Your task to perform on an android device: Add alienware area 51 to the cart on walmart.com Image 0: 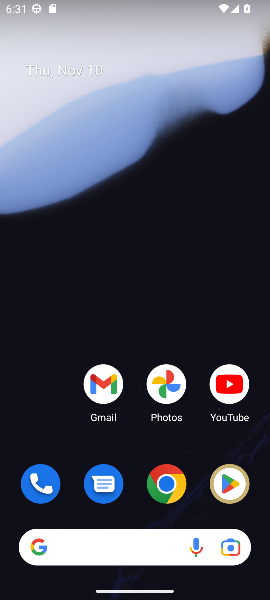
Step 0: click (164, 488)
Your task to perform on an android device: Add alienware area 51 to the cart on walmart.com Image 1: 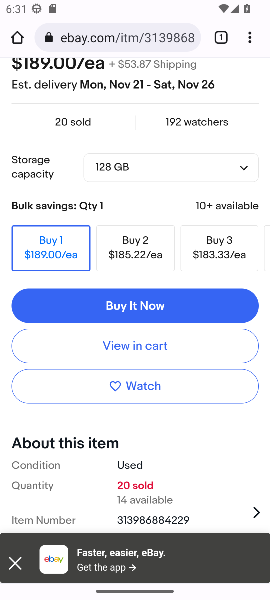
Step 1: click (106, 40)
Your task to perform on an android device: Add alienware area 51 to the cart on walmart.com Image 2: 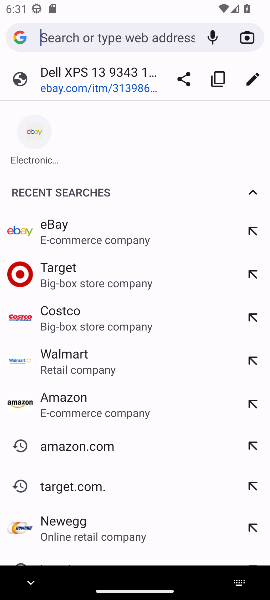
Step 2: type "walmart.com"
Your task to perform on an android device: Add alienware area 51 to the cart on walmart.com Image 3: 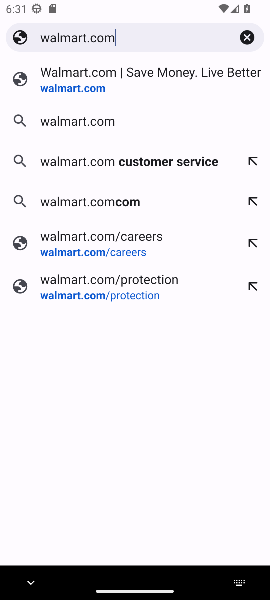
Step 3: click (72, 85)
Your task to perform on an android device: Add alienware area 51 to the cart on walmart.com Image 4: 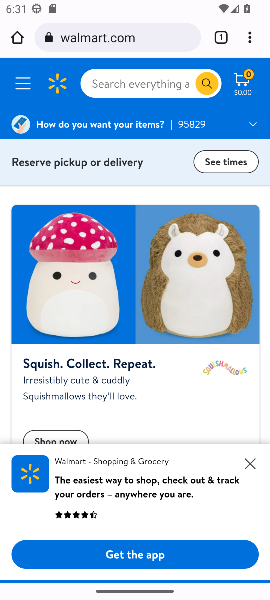
Step 4: click (118, 83)
Your task to perform on an android device: Add alienware area 51 to the cart on walmart.com Image 5: 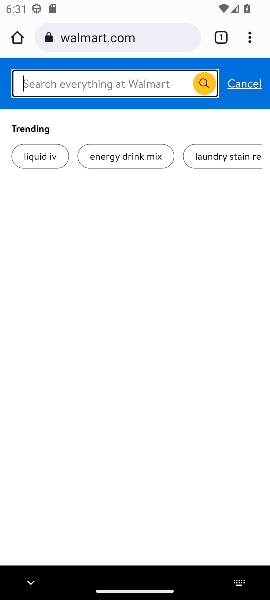
Step 5: type "alienware area 51"
Your task to perform on an android device: Add alienware area 51 to the cart on walmart.com Image 6: 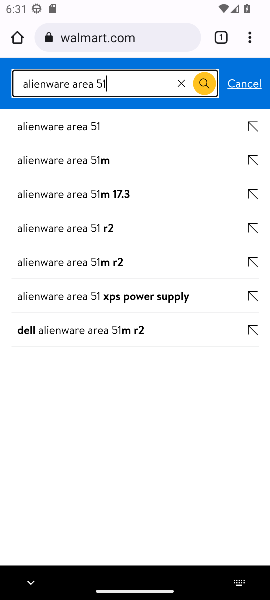
Step 6: click (79, 125)
Your task to perform on an android device: Add alienware area 51 to the cart on walmart.com Image 7: 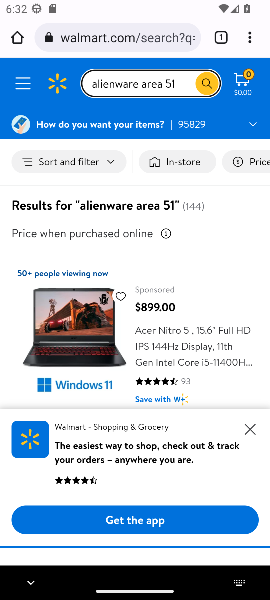
Step 7: drag from (143, 352) to (153, 174)
Your task to perform on an android device: Add alienware area 51 to the cart on walmart.com Image 8: 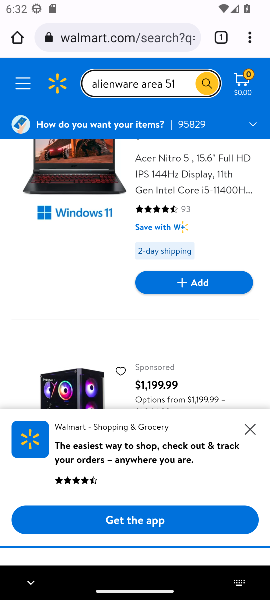
Step 8: drag from (120, 336) to (131, 158)
Your task to perform on an android device: Add alienware area 51 to the cart on walmart.com Image 9: 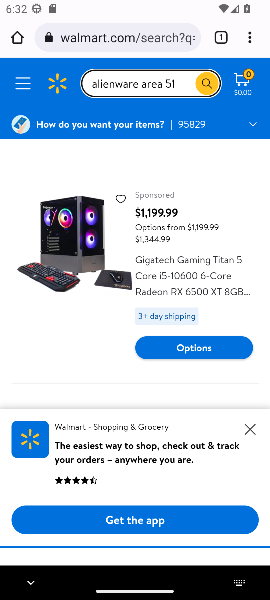
Step 9: click (255, 430)
Your task to perform on an android device: Add alienware area 51 to the cart on walmart.com Image 10: 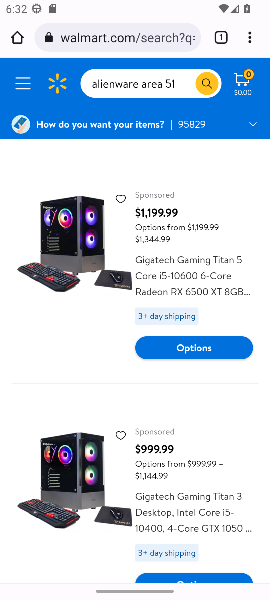
Step 10: drag from (91, 392) to (91, 216)
Your task to perform on an android device: Add alienware area 51 to the cart on walmart.com Image 11: 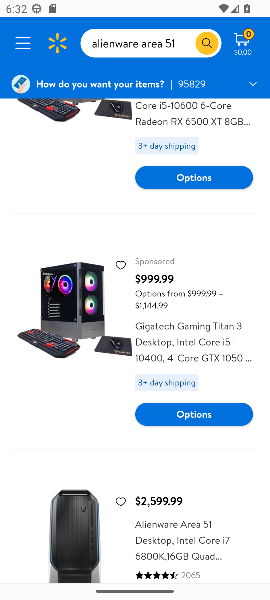
Step 11: drag from (65, 400) to (60, 230)
Your task to perform on an android device: Add alienware area 51 to the cart on walmart.com Image 12: 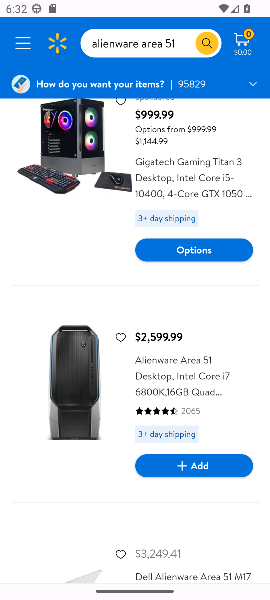
Step 12: click (190, 468)
Your task to perform on an android device: Add alienware area 51 to the cart on walmart.com Image 13: 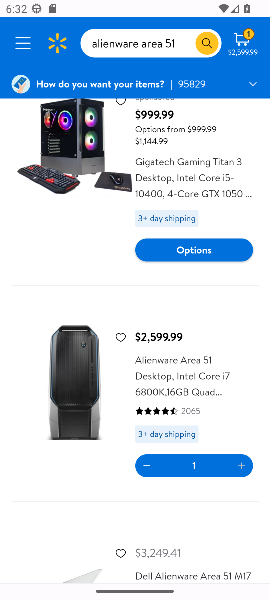
Step 13: task complete